Your task to perform on an android device: Show me the alarms in the clock app Image 0: 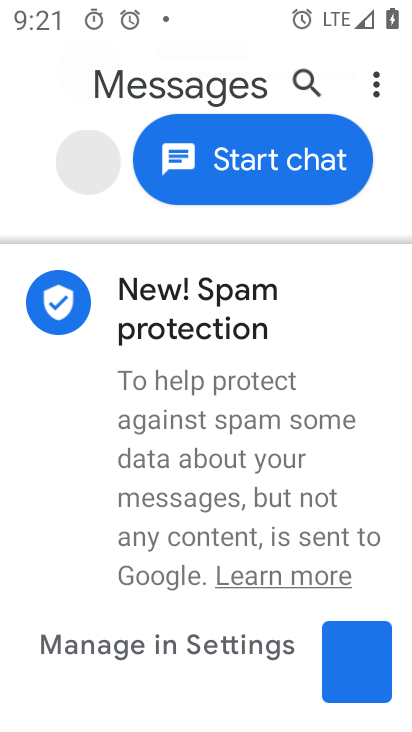
Step 0: press home button
Your task to perform on an android device: Show me the alarms in the clock app Image 1: 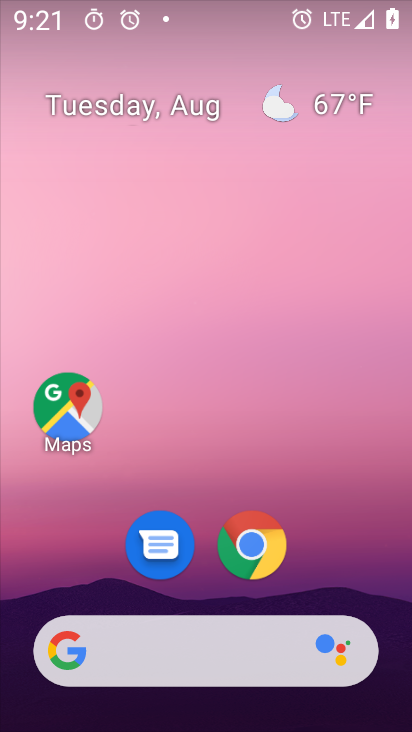
Step 1: drag from (253, 612) to (260, 47)
Your task to perform on an android device: Show me the alarms in the clock app Image 2: 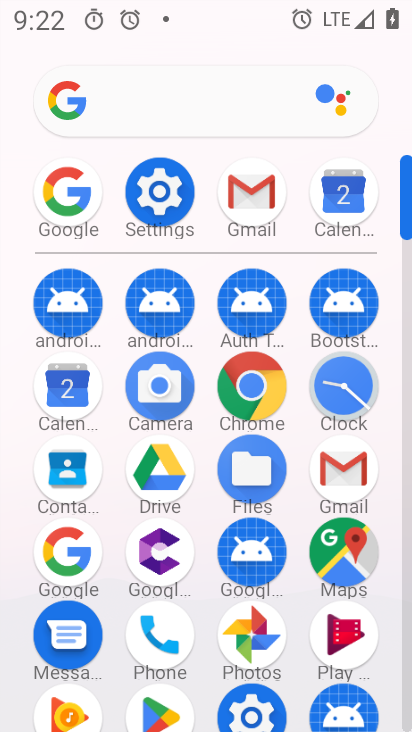
Step 2: click (338, 387)
Your task to perform on an android device: Show me the alarms in the clock app Image 3: 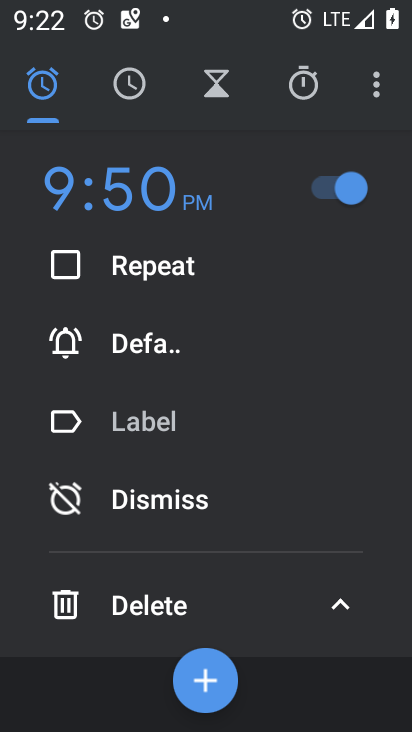
Step 3: task complete